Your task to perform on an android device: Open calendar and show me the second week of next month Image 0: 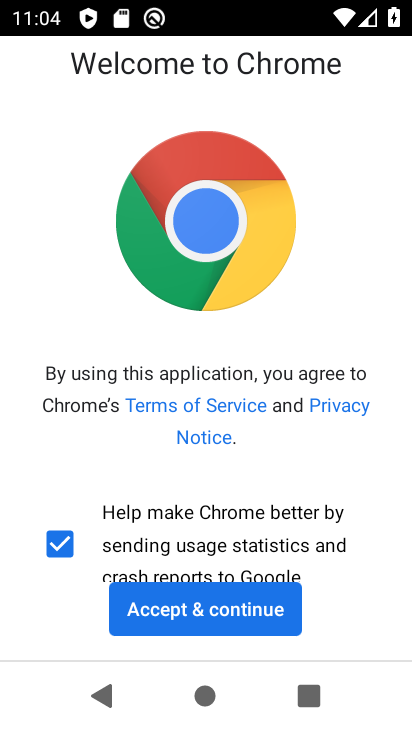
Step 0: press back button
Your task to perform on an android device: Open calendar and show me the second week of next month Image 1: 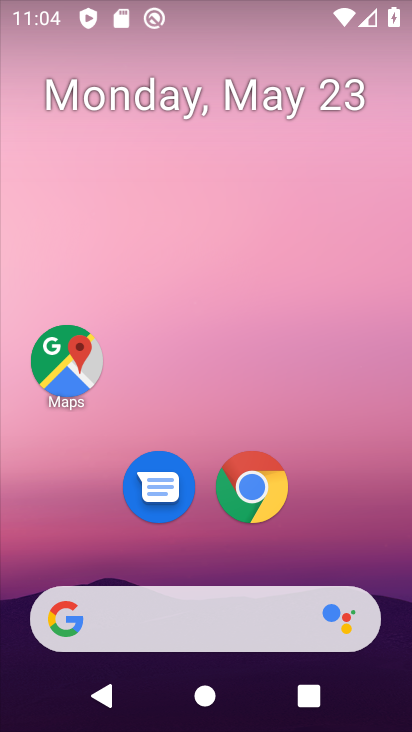
Step 1: drag from (89, 583) to (271, 63)
Your task to perform on an android device: Open calendar and show me the second week of next month Image 2: 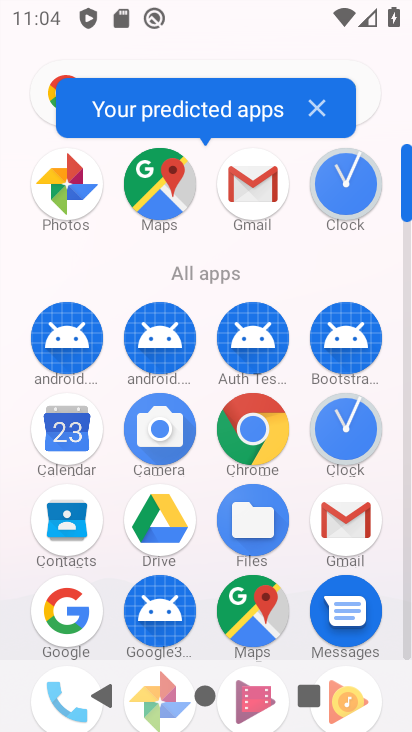
Step 2: click (78, 442)
Your task to perform on an android device: Open calendar and show me the second week of next month Image 3: 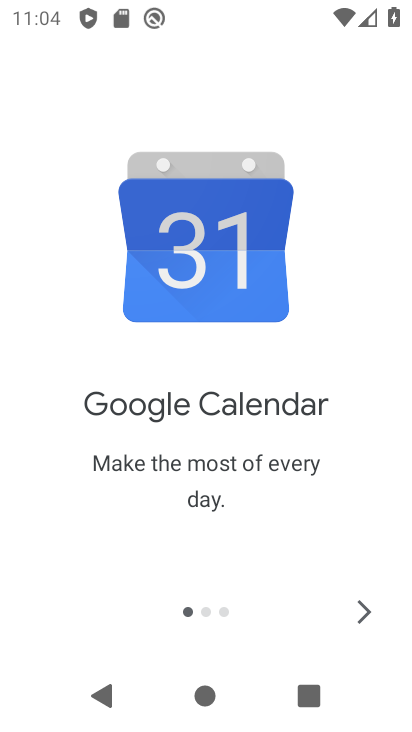
Step 3: click (352, 626)
Your task to perform on an android device: Open calendar and show me the second week of next month Image 4: 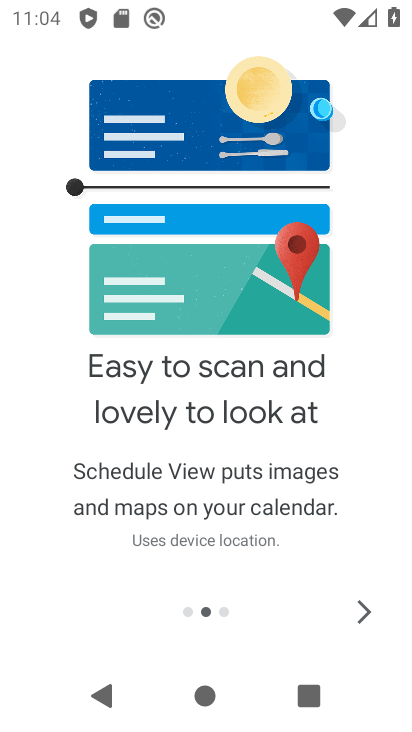
Step 4: click (358, 629)
Your task to perform on an android device: Open calendar and show me the second week of next month Image 5: 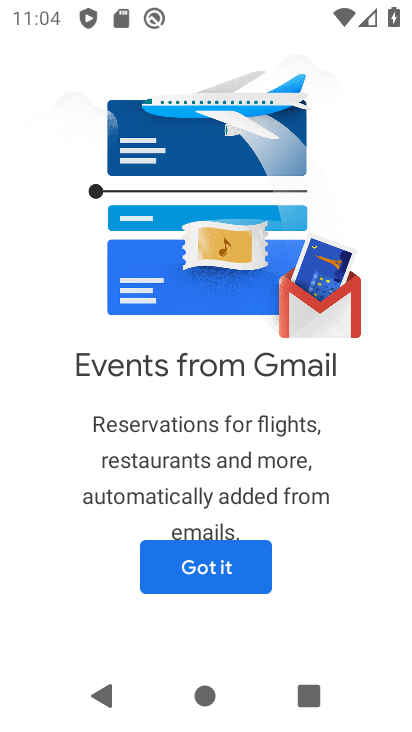
Step 5: click (207, 561)
Your task to perform on an android device: Open calendar and show me the second week of next month Image 6: 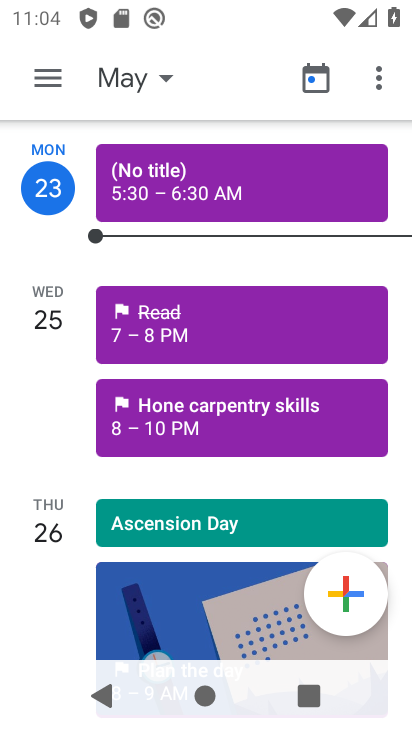
Step 6: click (121, 85)
Your task to perform on an android device: Open calendar and show me the second week of next month Image 7: 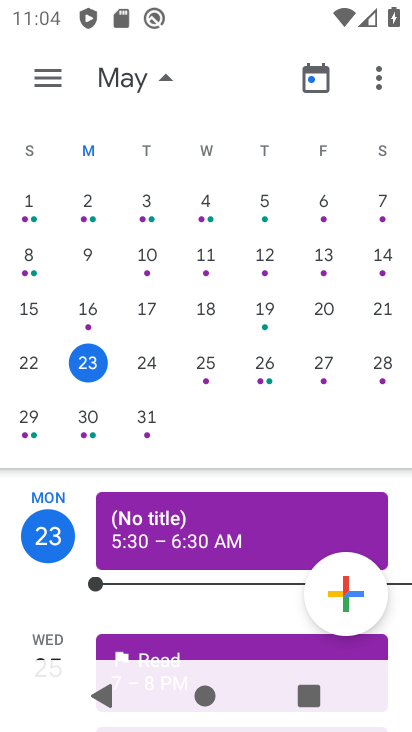
Step 7: drag from (369, 396) to (14, 384)
Your task to perform on an android device: Open calendar and show me the second week of next month Image 8: 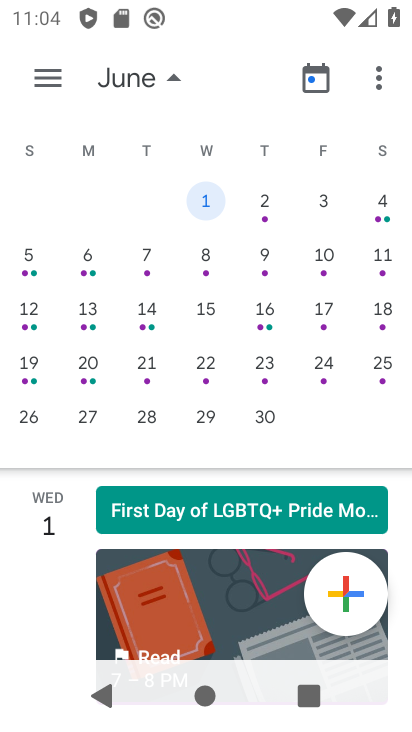
Step 8: click (31, 319)
Your task to perform on an android device: Open calendar and show me the second week of next month Image 9: 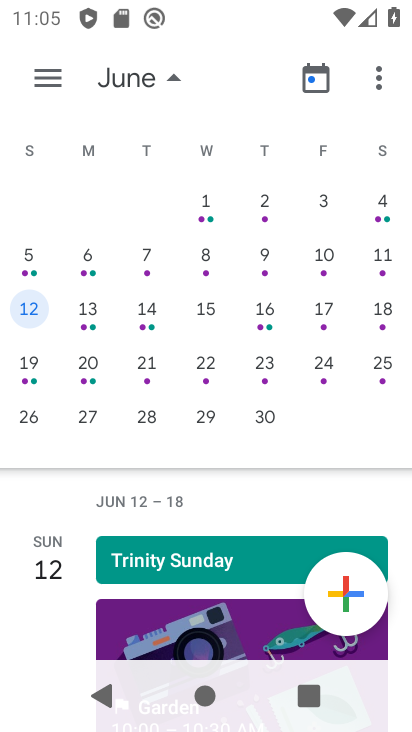
Step 9: click (45, 88)
Your task to perform on an android device: Open calendar and show me the second week of next month Image 10: 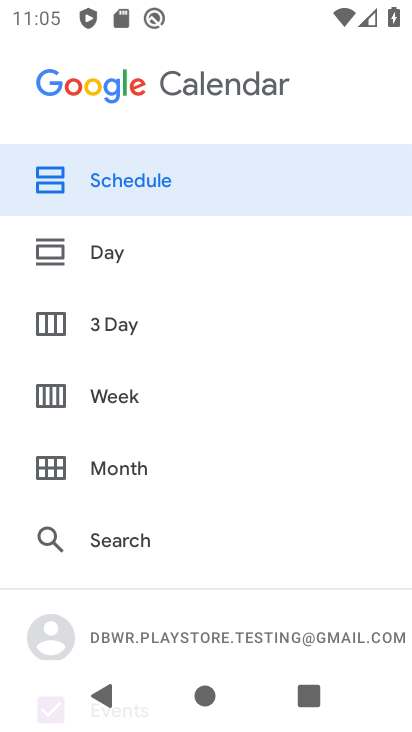
Step 10: click (171, 400)
Your task to perform on an android device: Open calendar and show me the second week of next month Image 11: 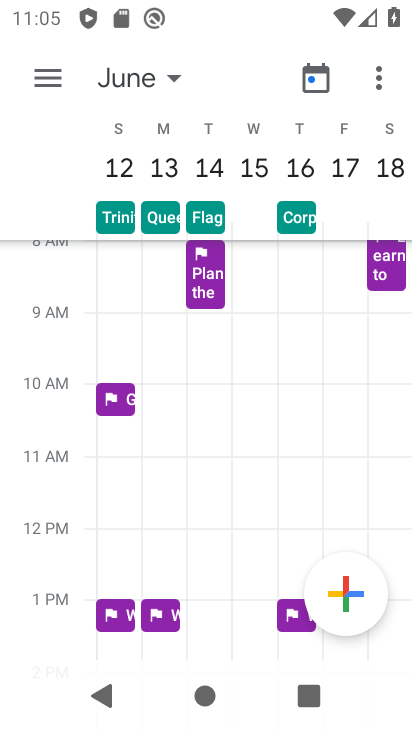
Step 11: task complete